Your task to perform on an android device: open app "DoorDash - Dasher" (install if not already installed) Image 0: 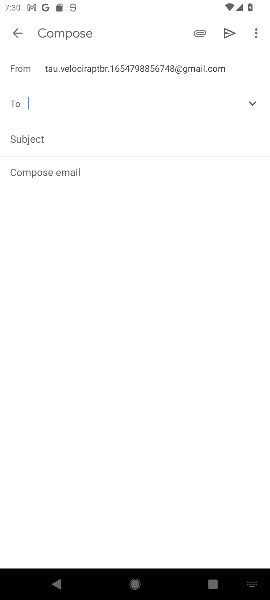
Step 0: click (17, 32)
Your task to perform on an android device: open app "DoorDash - Dasher" (install if not already installed) Image 1: 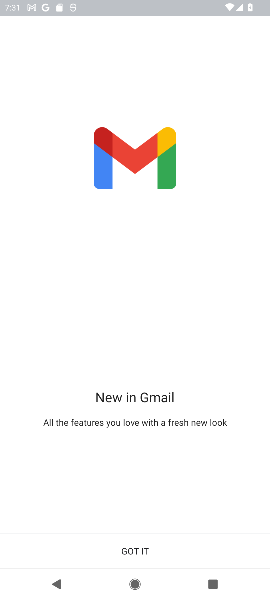
Step 1: press back button
Your task to perform on an android device: open app "DoorDash - Dasher" (install if not already installed) Image 2: 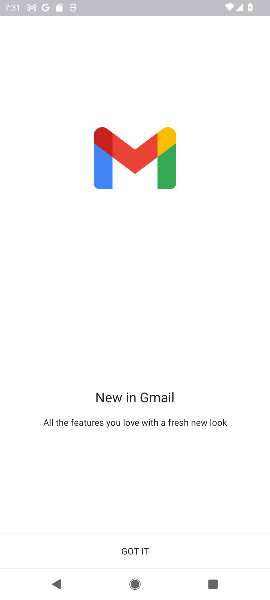
Step 2: press back button
Your task to perform on an android device: open app "DoorDash - Dasher" (install if not already installed) Image 3: 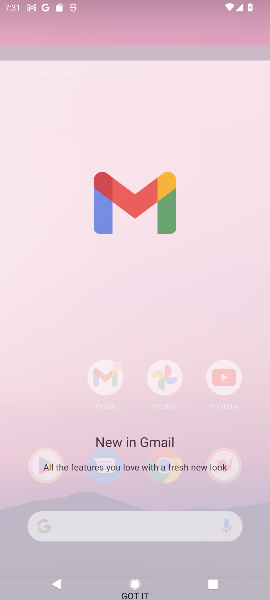
Step 3: press back button
Your task to perform on an android device: open app "DoorDash - Dasher" (install if not already installed) Image 4: 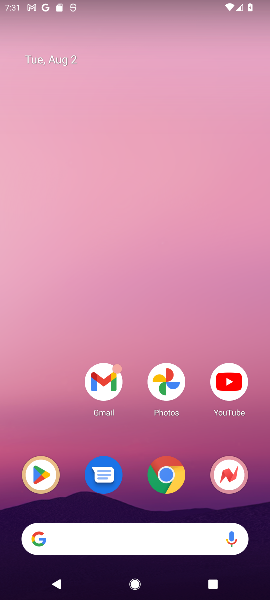
Step 4: drag from (138, 476) to (71, 143)
Your task to perform on an android device: open app "DoorDash - Dasher" (install if not already installed) Image 5: 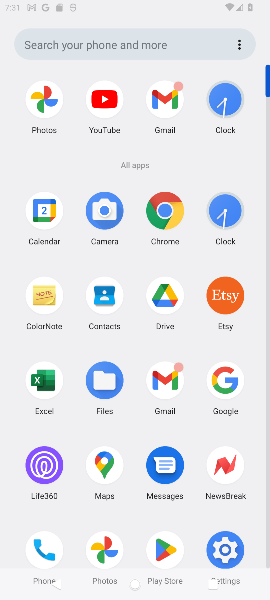
Step 5: drag from (136, 325) to (96, 16)
Your task to perform on an android device: open app "DoorDash - Dasher" (install if not already installed) Image 6: 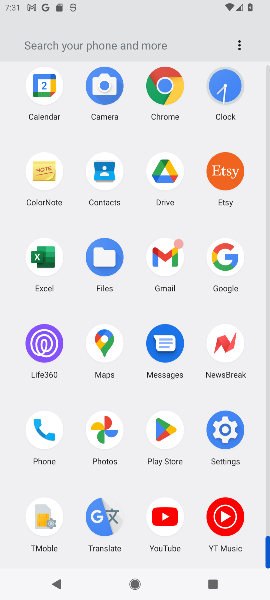
Step 6: drag from (117, 336) to (106, 11)
Your task to perform on an android device: open app "DoorDash - Dasher" (install if not already installed) Image 7: 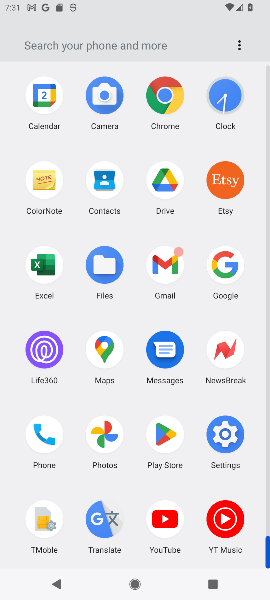
Step 7: click (163, 444)
Your task to perform on an android device: open app "DoorDash - Dasher" (install if not already installed) Image 8: 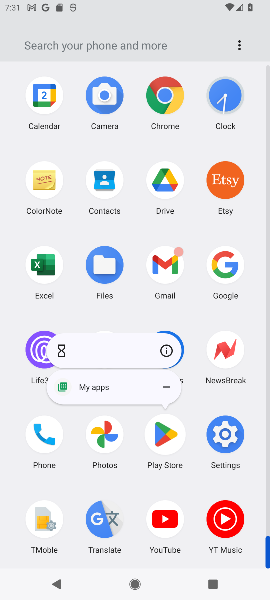
Step 8: click (163, 444)
Your task to perform on an android device: open app "DoorDash - Dasher" (install if not already installed) Image 9: 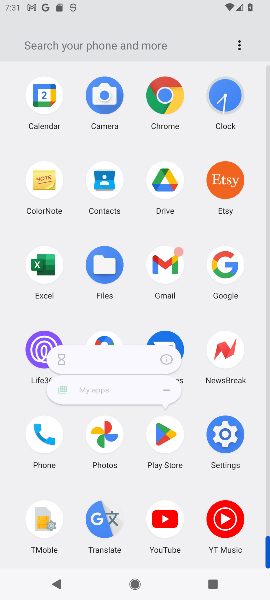
Step 9: click (163, 444)
Your task to perform on an android device: open app "DoorDash - Dasher" (install if not already installed) Image 10: 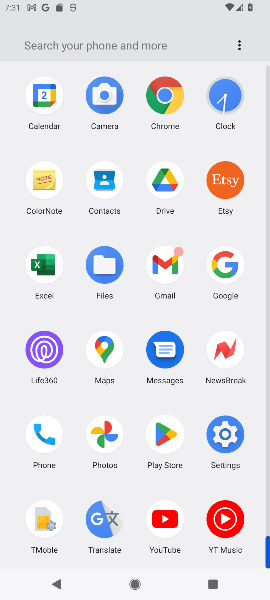
Step 10: click (164, 444)
Your task to perform on an android device: open app "DoorDash - Dasher" (install if not already installed) Image 11: 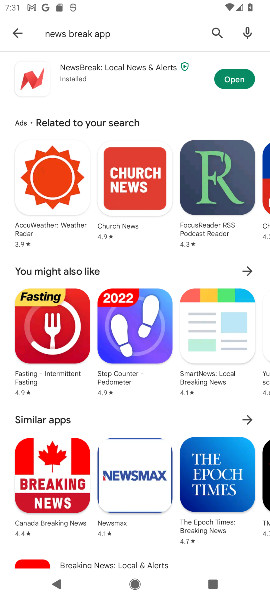
Step 11: click (165, 444)
Your task to perform on an android device: open app "DoorDash - Dasher" (install if not already installed) Image 12: 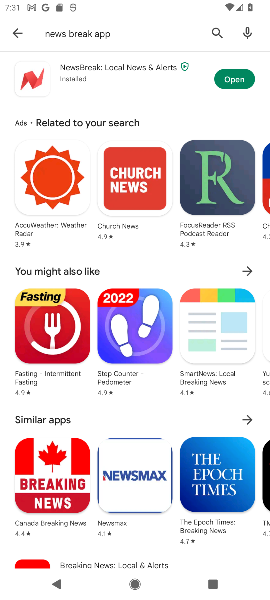
Step 12: click (166, 444)
Your task to perform on an android device: open app "DoorDash - Dasher" (install if not already installed) Image 13: 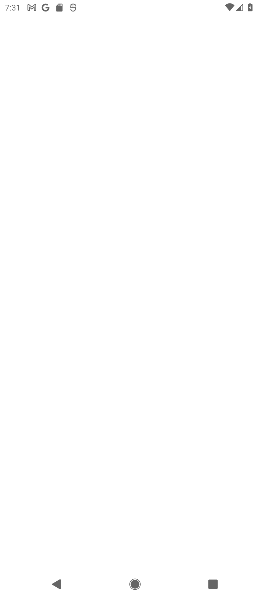
Step 13: click (10, 30)
Your task to perform on an android device: open app "DoorDash - Dasher" (install if not already installed) Image 14: 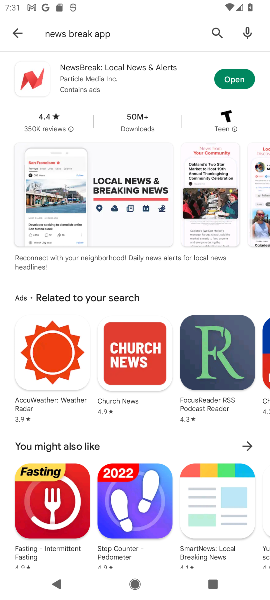
Step 14: click (127, 32)
Your task to perform on an android device: open app "DoorDash - Dasher" (install if not already installed) Image 15: 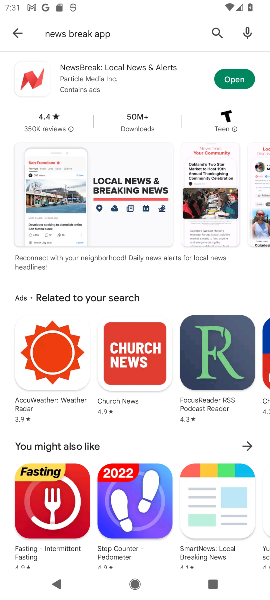
Step 15: click (125, 35)
Your task to perform on an android device: open app "DoorDash - Dasher" (install if not already installed) Image 16: 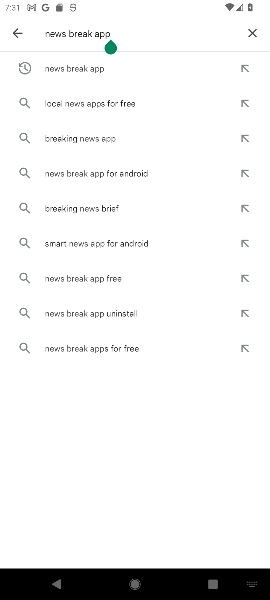
Step 16: click (123, 35)
Your task to perform on an android device: open app "DoorDash - Dasher" (install if not already installed) Image 17: 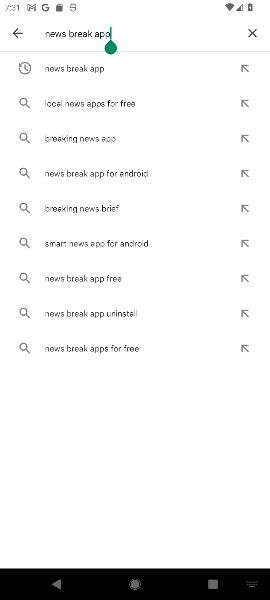
Step 17: click (123, 35)
Your task to perform on an android device: open app "DoorDash - Dasher" (install if not already installed) Image 18: 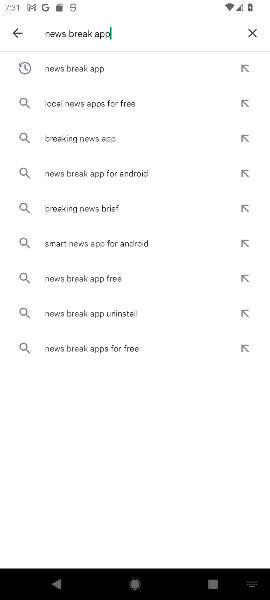
Step 18: click (254, 32)
Your task to perform on an android device: open app "DoorDash - Dasher" (install if not already installed) Image 19: 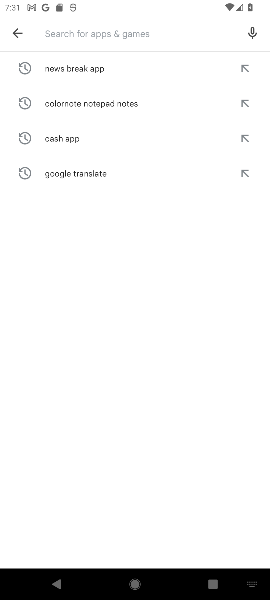
Step 19: click (246, 32)
Your task to perform on an android device: open app "DoorDash - Dasher" (install if not already installed) Image 20: 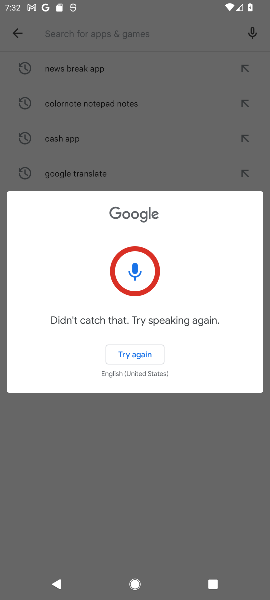
Step 20: type "Doordash"
Your task to perform on an android device: open app "DoorDash - Dasher" (install if not already installed) Image 21: 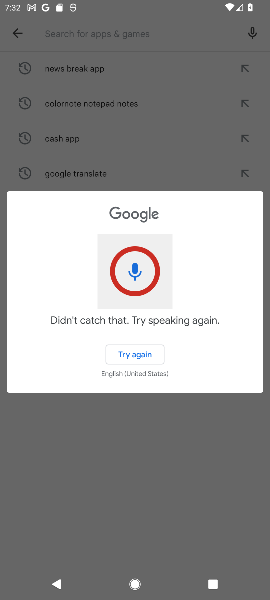
Step 21: click (171, 111)
Your task to perform on an android device: open app "DoorDash - Dasher" (install if not already installed) Image 22: 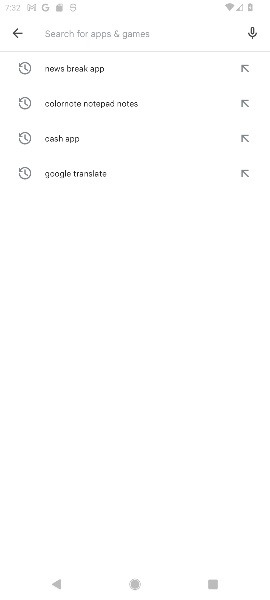
Step 22: click (162, 121)
Your task to perform on an android device: open app "DoorDash - Dasher" (install if not already installed) Image 23: 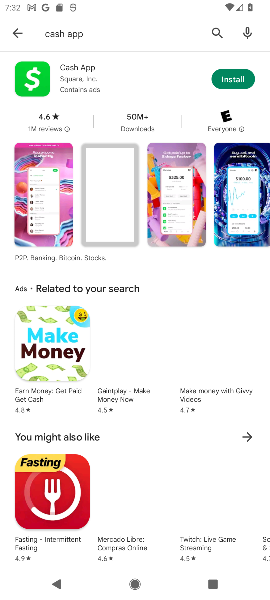
Step 23: click (66, 38)
Your task to perform on an android device: open app "DoorDash - Dasher" (install if not already installed) Image 24: 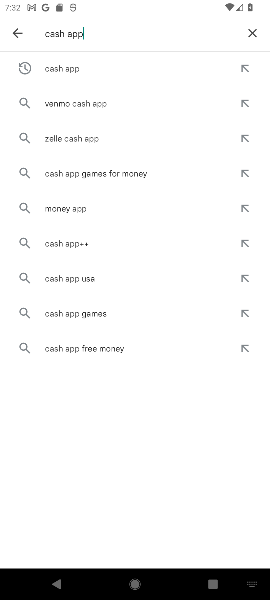
Step 24: click (249, 37)
Your task to perform on an android device: open app "DoorDash - Dasher" (install if not already installed) Image 25: 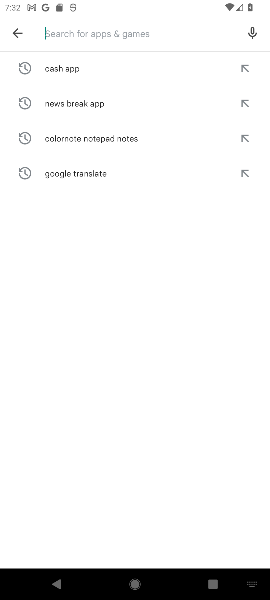
Step 25: click (250, 36)
Your task to perform on an android device: open app "DoorDash - Dasher" (install if not already installed) Image 26: 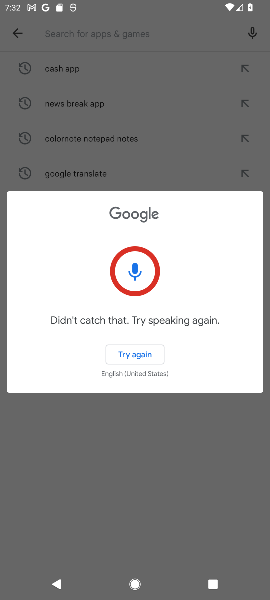
Step 26: click (49, 39)
Your task to perform on an android device: open app "DoorDash - Dasher" (install if not already installed) Image 27: 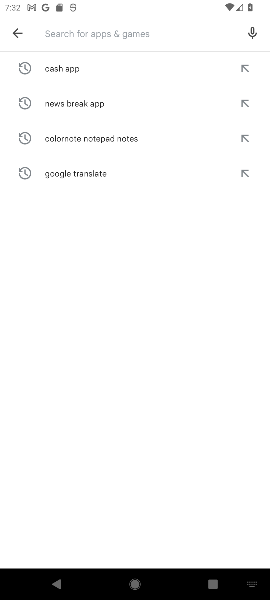
Step 27: click (49, 35)
Your task to perform on an android device: open app "DoorDash - Dasher" (install if not already installed) Image 28: 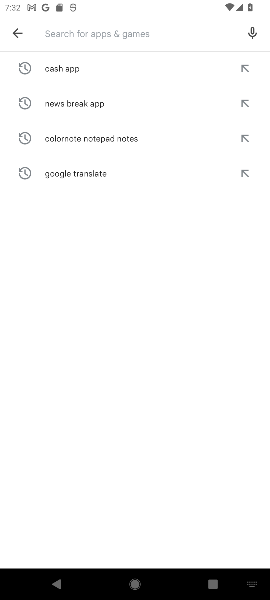
Step 28: type "doordash"
Your task to perform on an android device: open app "DoorDash - Dasher" (install if not already installed) Image 29: 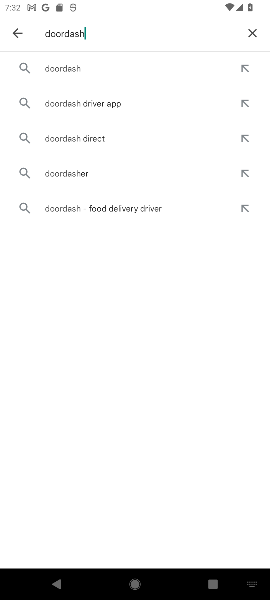
Step 29: click (53, 64)
Your task to perform on an android device: open app "DoorDash - Dasher" (install if not already installed) Image 30: 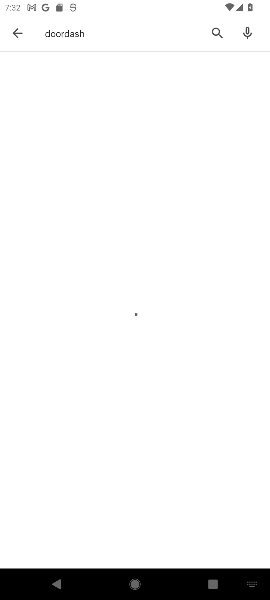
Step 30: click (63, 68)
Your task to perform on an android device: open app "DoorDash - Dasher" (install if not already installed) Image 31: 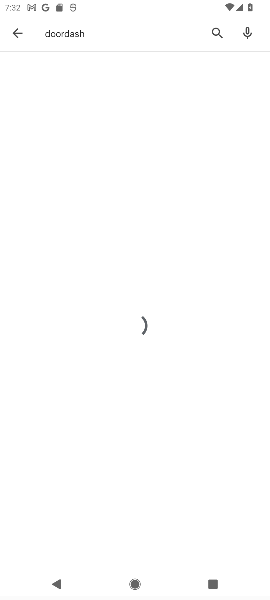
Step 31: click (64, 67)
Your task to perform on an android device: open app "DoorDash - Dasher" (install if not already installed) Image 32: 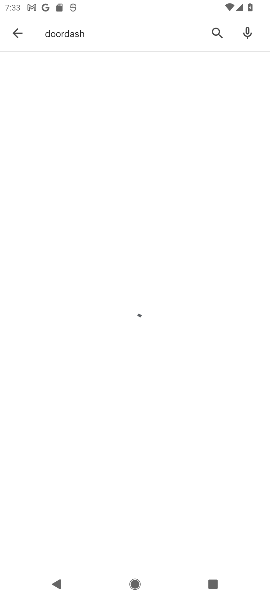
Step 32: click (64, 67)
Your task to perform on an android device: open app "DoorDash - Dasher" (install if not already installed) Image 33: 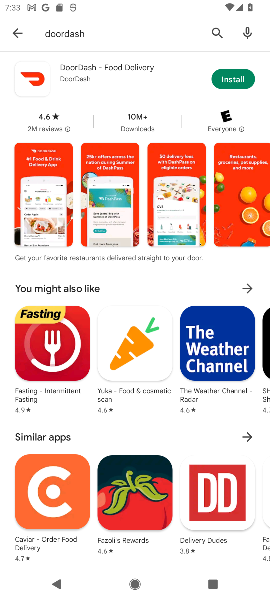
Step 33: click (243, 73)
Your task to perform on an android device: open app "DoorDash - Dasher" (install if not already installed) Image 34: 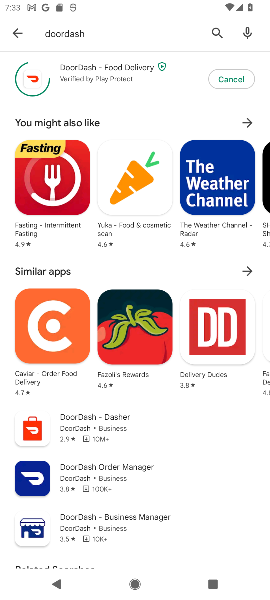
Step 34: click (243, 80)
Your task to perform on an android device: open app "DoorDash - Dasher" (install if not already installed) Image 35: 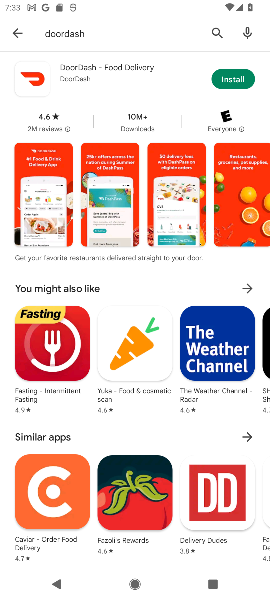
Step 35: click (229, 80)
Your task to perform on an android device: open app "DoorDash - Dasher" (install if not already installed) Image 36: 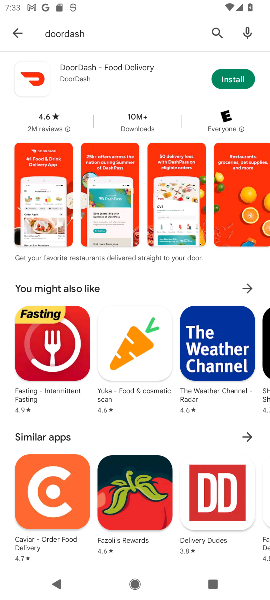
Step 36: click (229, 80)
Your task to perform on an android device: open app "DoorDash - Dasher" (install if not already installed) Image 37: 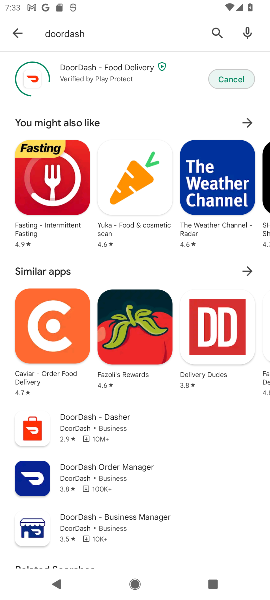
Step 37: click (229, 80)
Your task to perform on an android device: open app "DoorDash - Dasher" (install if not already installed) Image 38: 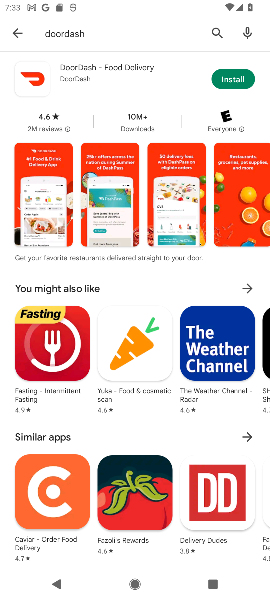
Step 38: task complete